Your task to perform on an android device: uninstall "Gmail" Image 0: 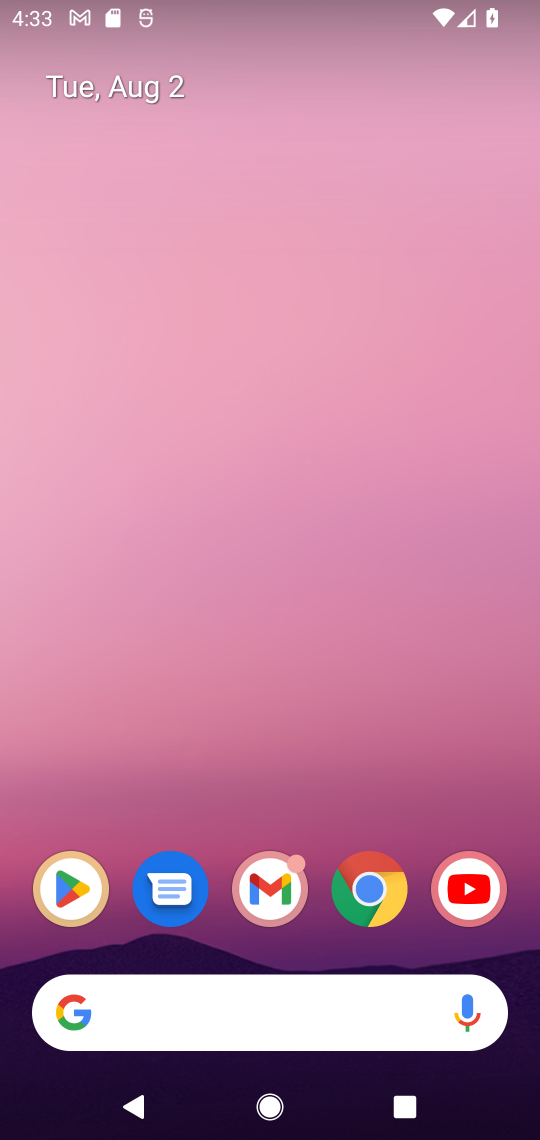
Step 0: press home button
Your task to perform on an android device: uninstall "Gmail" Image 1: 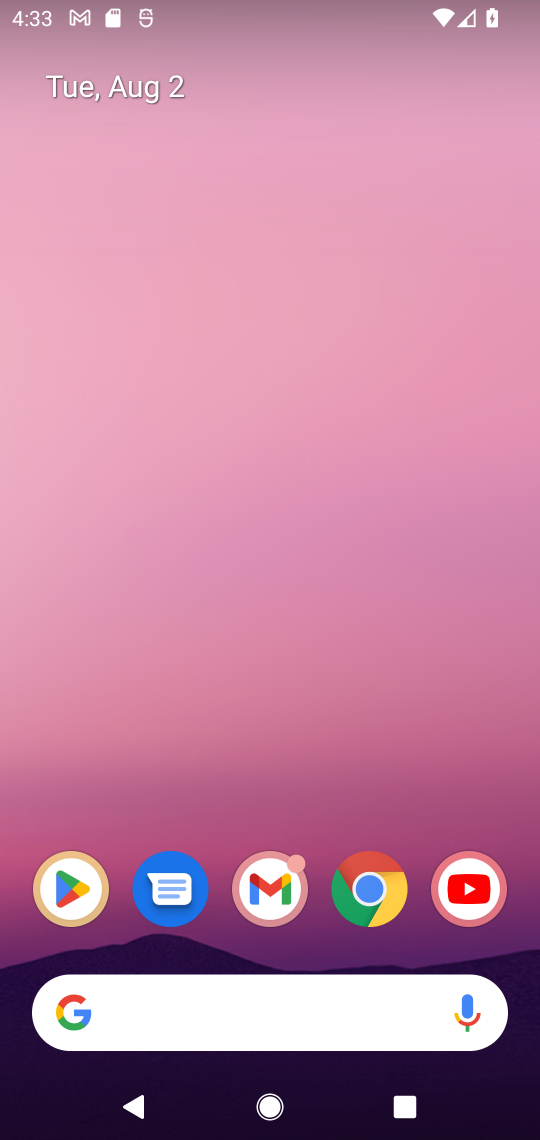
Step 1: drag from (430, 800) to (381, 78)
Your task to perform on an android device: uninstall "Gmail" Image 2: 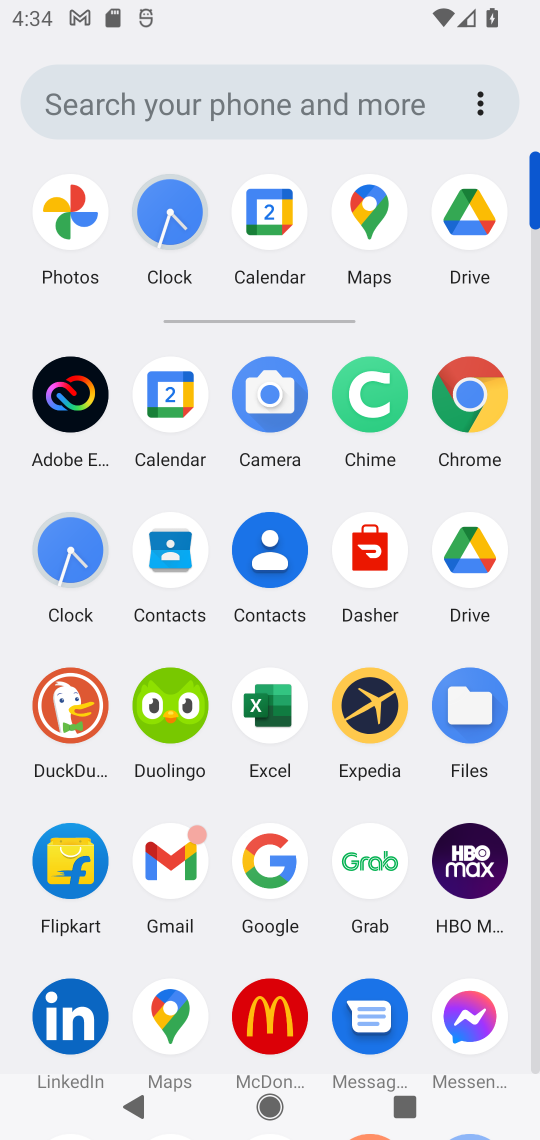
Step 2: drag from (511, 670) to (522, 321)
Your task to perform on an android device: uninstall "Gmail" Image 3: 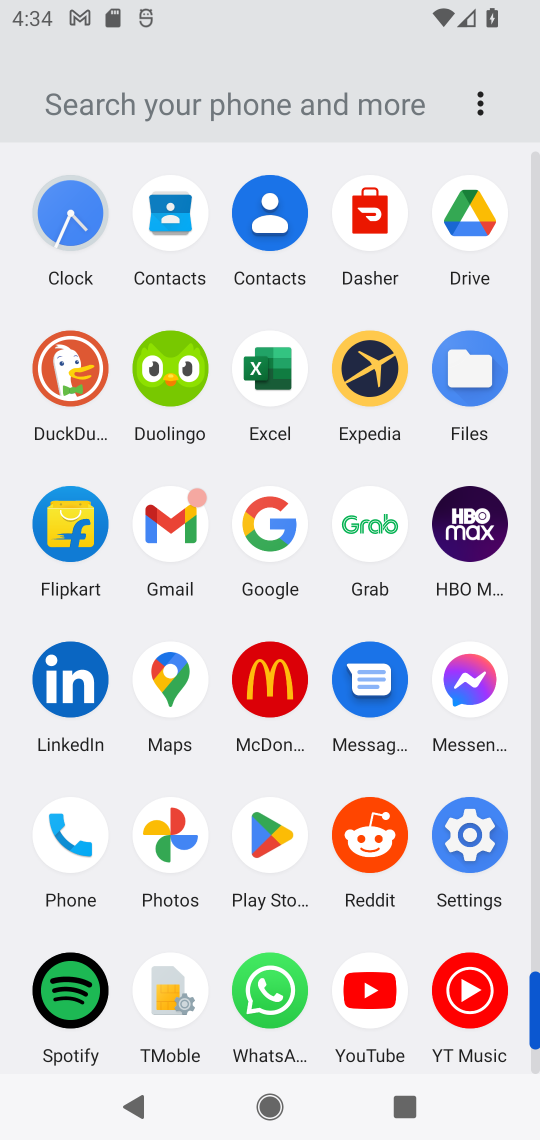
Step 3: click (270, 839)
Your task to perform on an android device: uninstall "Gmail" Image 4: 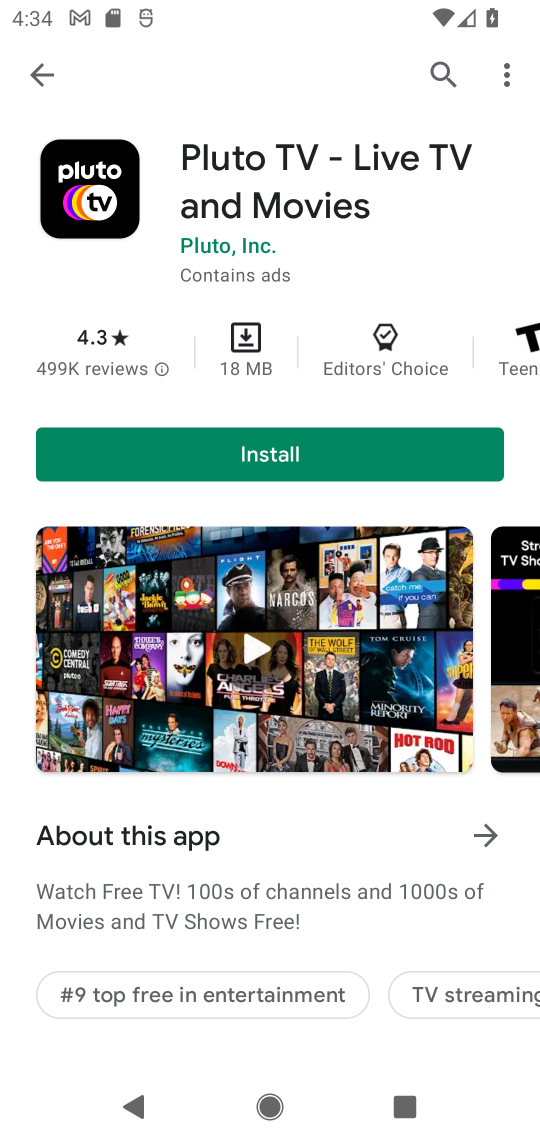
Step 4: click (449, 59)
Your task to perform on an android device: uninstall "Gmail" Image 5: 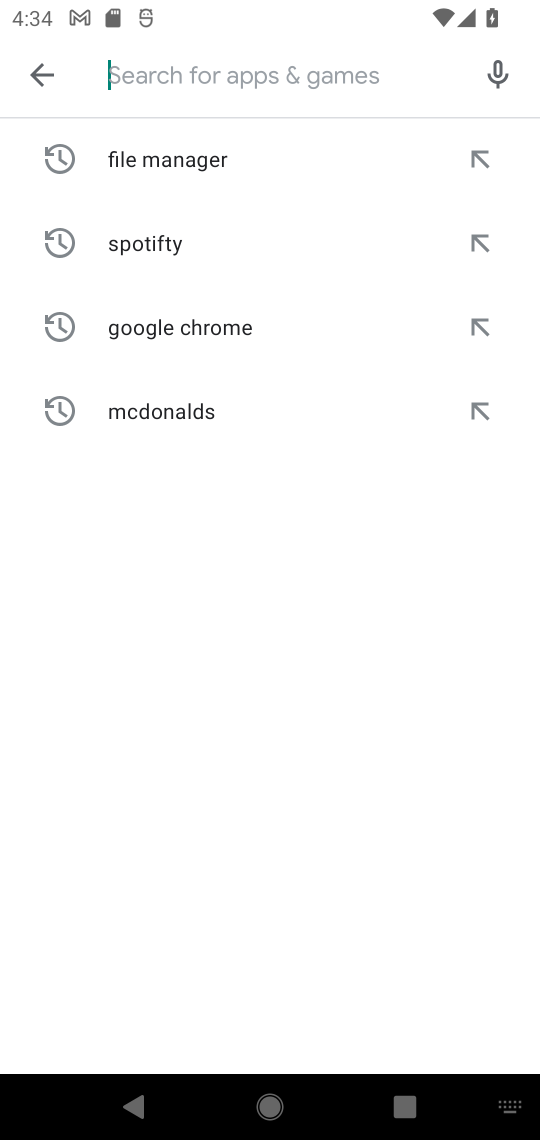
Step 5: click (284, 89)
Your task to perform on an android device: uninstall "Gmail" Image 6: 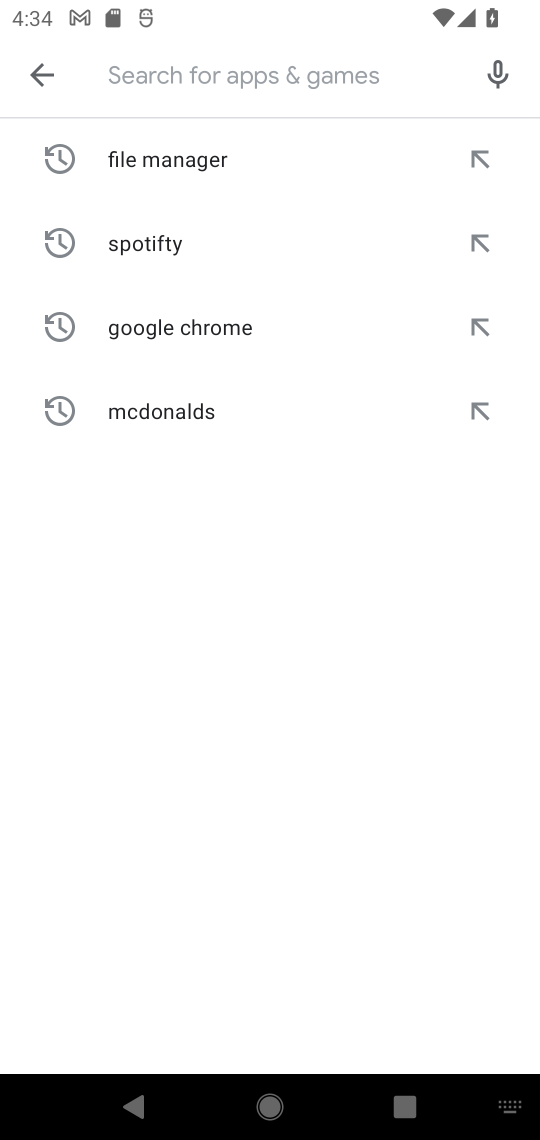
Step 6: type "gmail"
Your task to perform on an android device: uninstall "Gmail" Image 7: 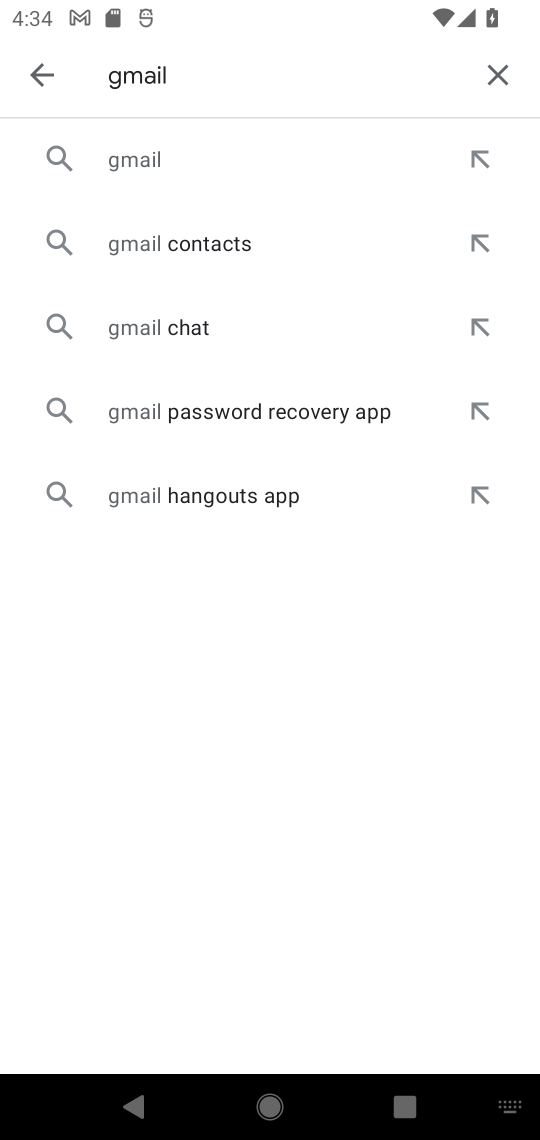
Step 7: task complete